Your task to perform on an android device: add a contact Image 0: 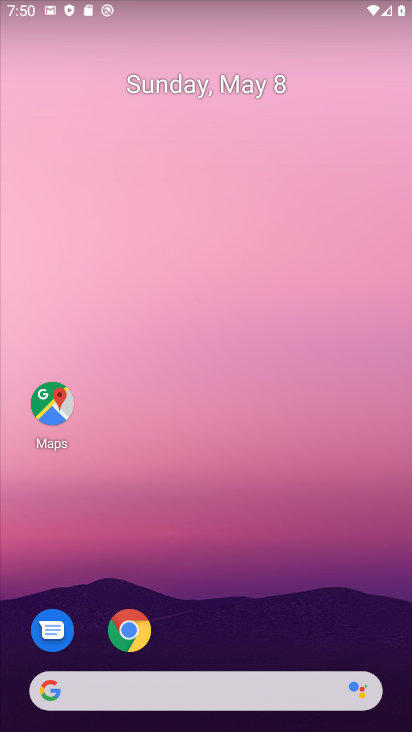
Step 0: drag from (198, 664) to (79, 0)
Your task to perform on an android device: add a contact Image 1: 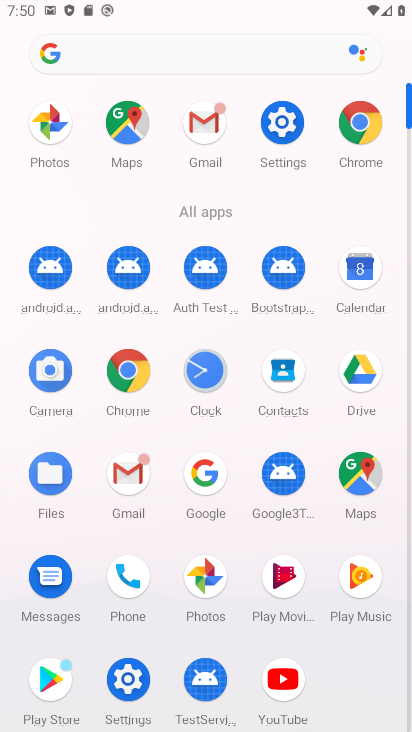
Step 1: click (128, 572)
Your task to perform on an android device: add a contact Image 2: 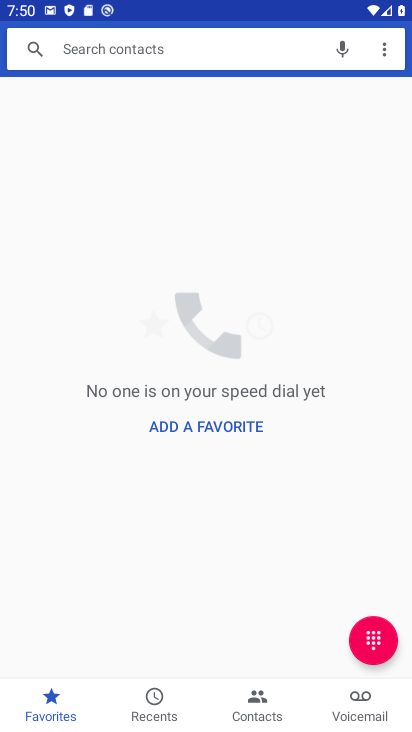
Step 2: click (243, 694)
Your task to perform on an android device: add a contact Image 3: 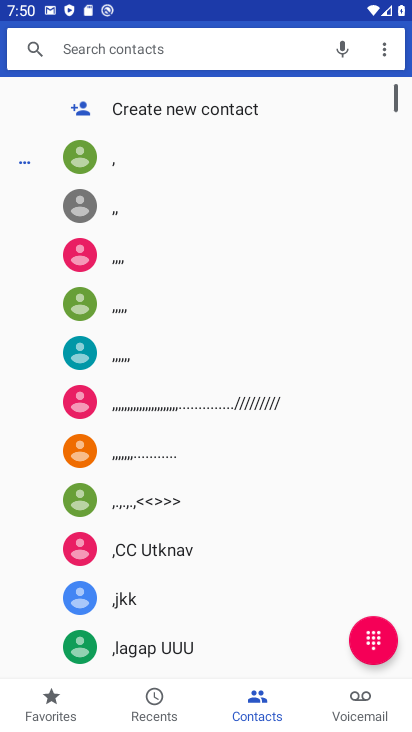
Step 3: click (171, 93)
Your task to perform on an android device: add a contact Image 4: 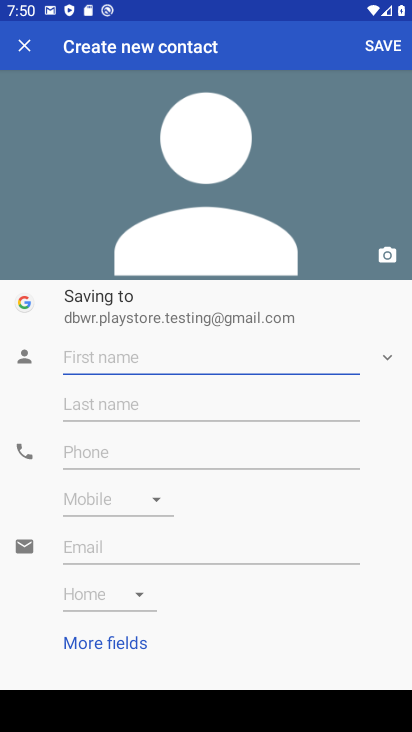
Step 4: type "bhu"
Your task to perform on an android device: add a contact Image 5: 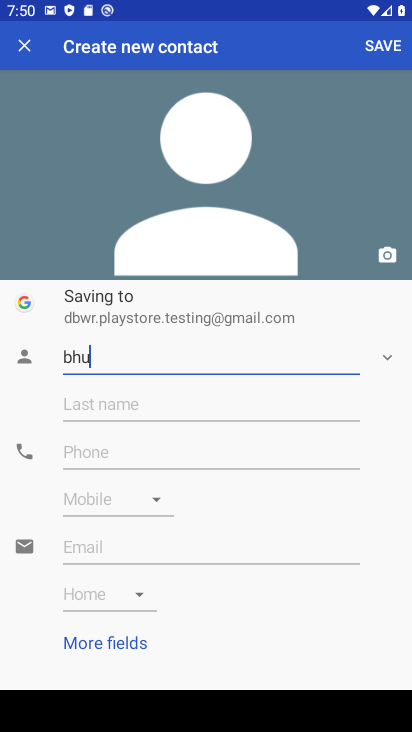
Step 5: type ""
Your task to perform on an android device: add a contact Image 6: 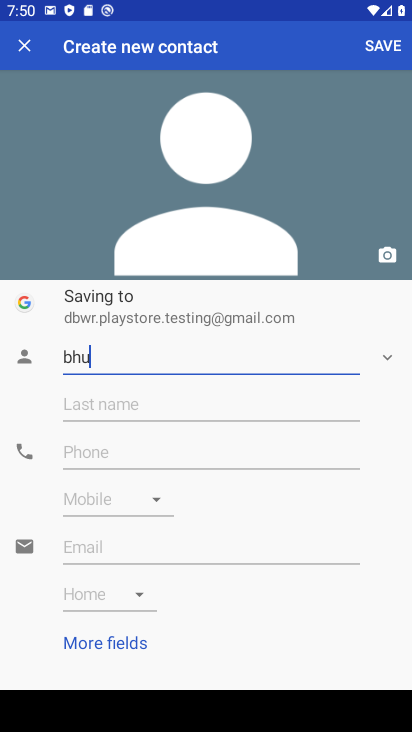
Step 6: click (307, 476)
Your task to perform on an android device: add a contact Image 7: 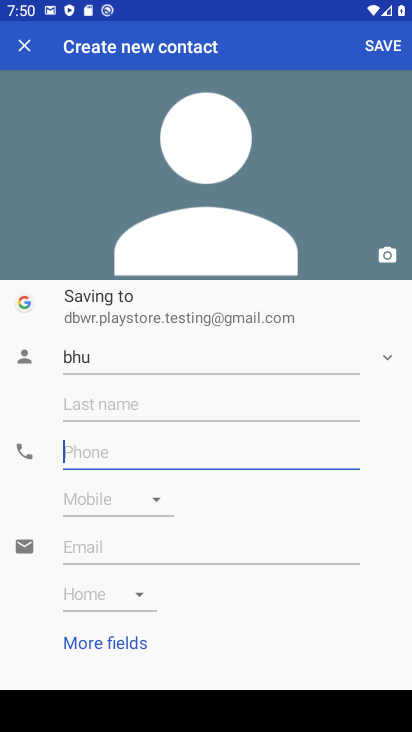
Step 7: type "98765"
Your task to perform on an android device: add a contact Image 8: 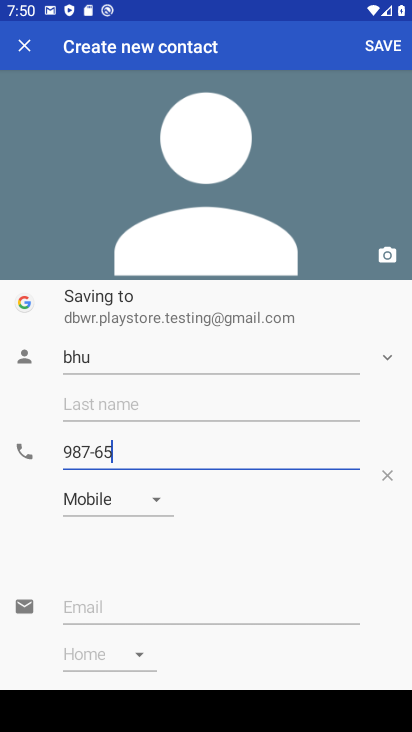
Step 8: type ""
Your task to perform on an android device: add a contact Image 9: 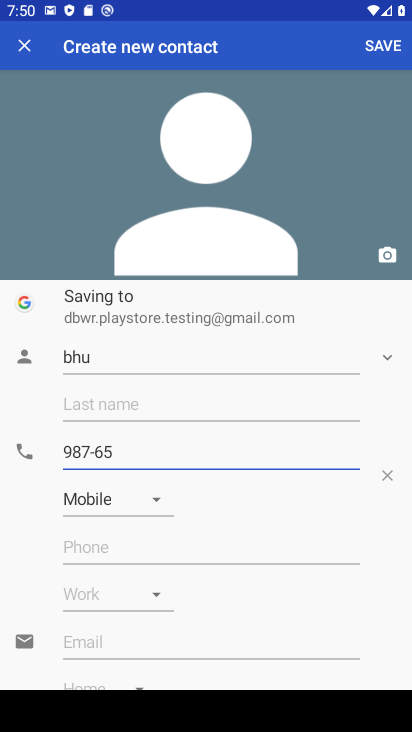
Step 9: click (397, 47)
Your task to perform on an android device: add a contact Image 10: 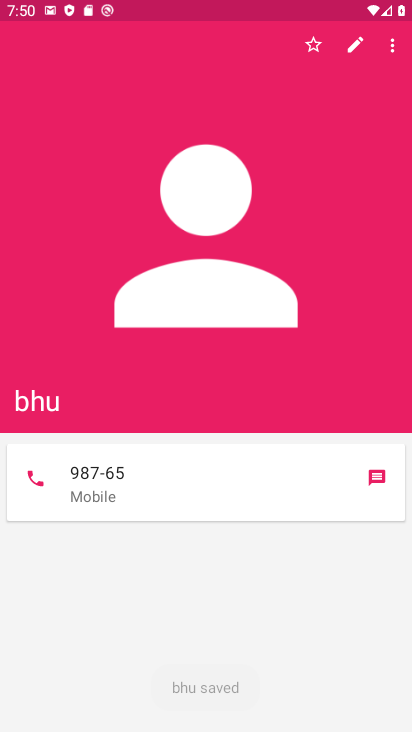
Step 10: task complete